Your task to perform on an android device: Go to calendar. Show me events next week Image 0: 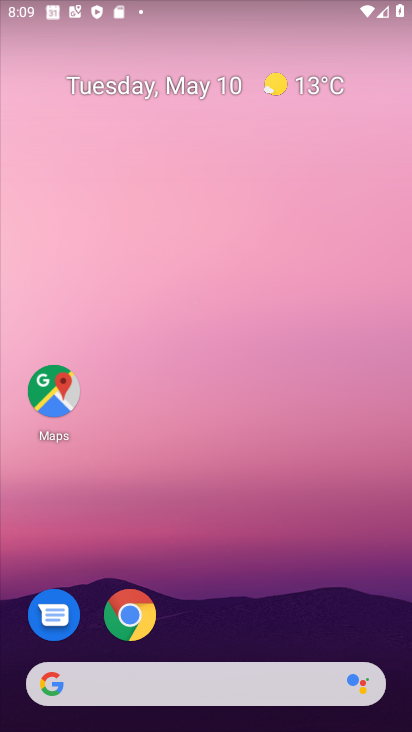
Step 0: drag from (282, 533) to (171, 61)
Your task to perform on an android device: Go to calendar. Show me events next week Image 1: 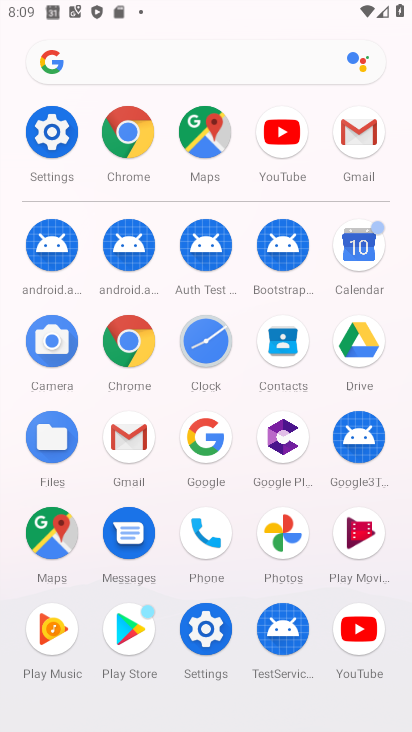
Step 1: click (356, 247)
Your task to perform on an android device: Go to calendar. Show me events next week Image 2: 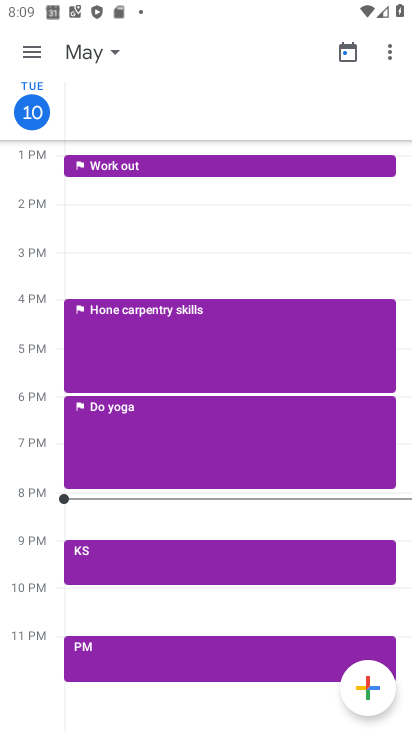
Step 2: click (33, 43)
Your task to perform on an android device: Go to calendar. Show me events next week Image 3: 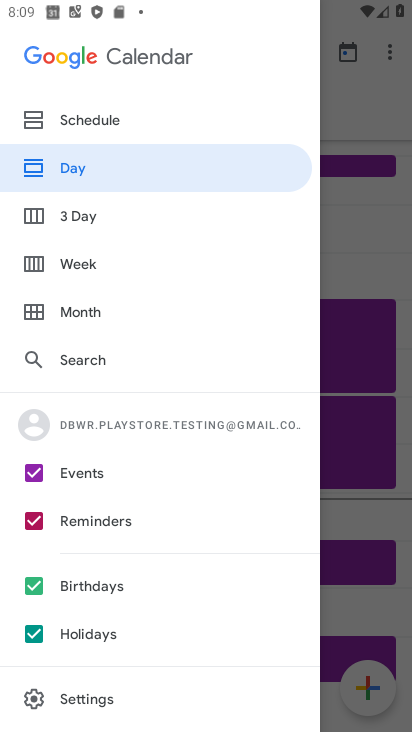
Step 3: click (84, 261)
Your task to perform on an android device: Go to calendar. Show me events next week Image 4: 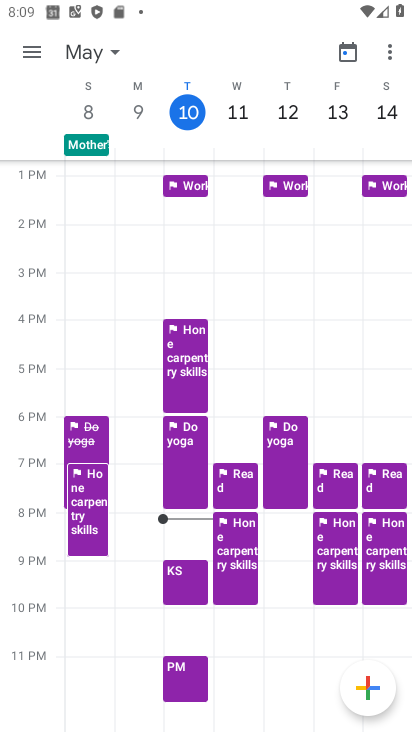
Step 4: click (114, 52)
Your task to perform on an android device: Go to calendar. Show me events next week Image 5: 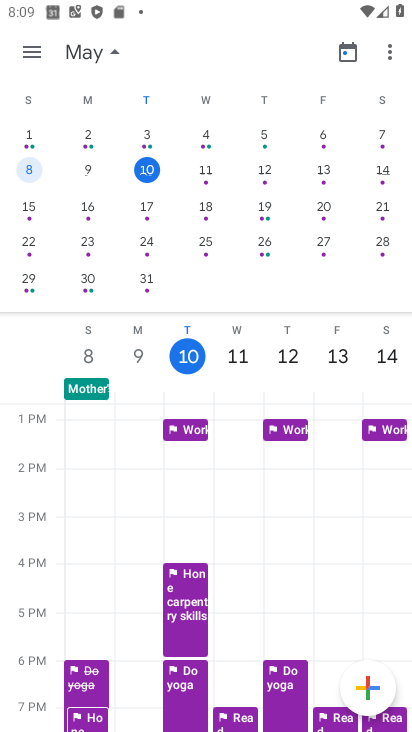
Step 5: click (144, 203)
Your task to perform on an android device: Go to calendar. Show me events next week Image 6: 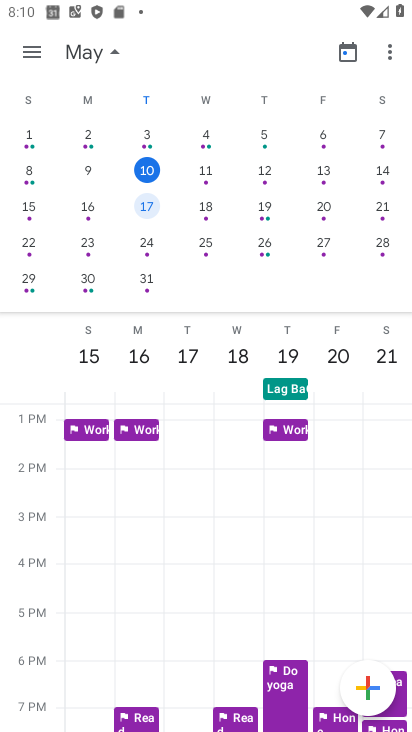
Step 6: task complete